Your task to perform on an android device: Search for sushi restaurants on Maps Image 0: 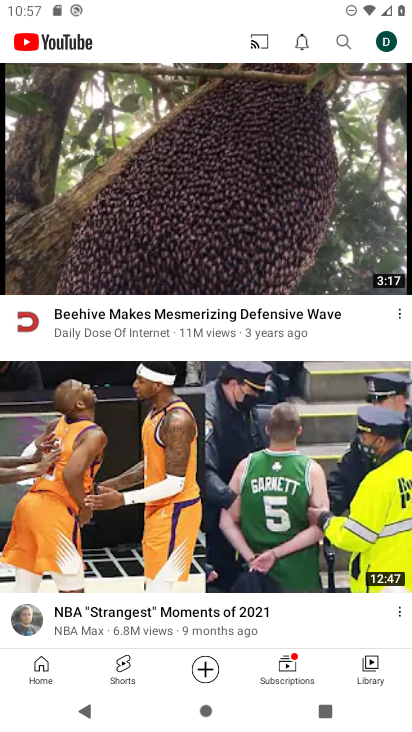
Step 0: press home button
Your task to perform on an android device: Search for sushi restaurants on Maps Image 1: 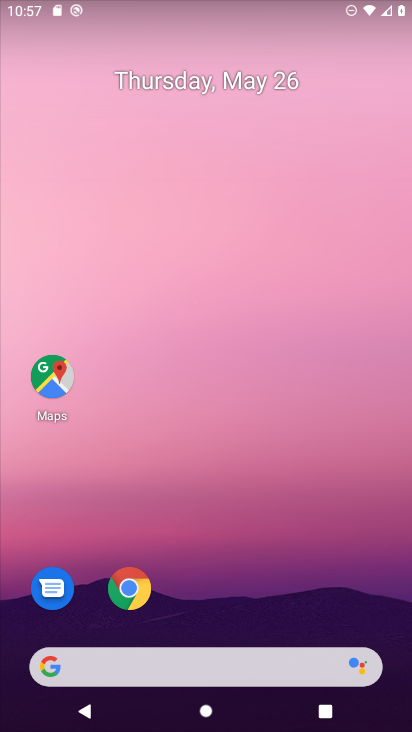
Step 1: click (53, 378)
Your task to perform on an android device: Search for sushi restaurants on Maps Image 2: 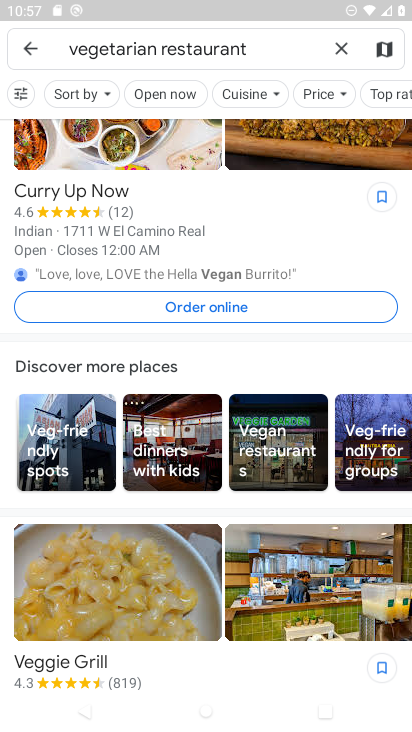
Step 2: click (341, 46)
Your task to perform on an android device: Search for sushi restaurants on Maps Image 3: 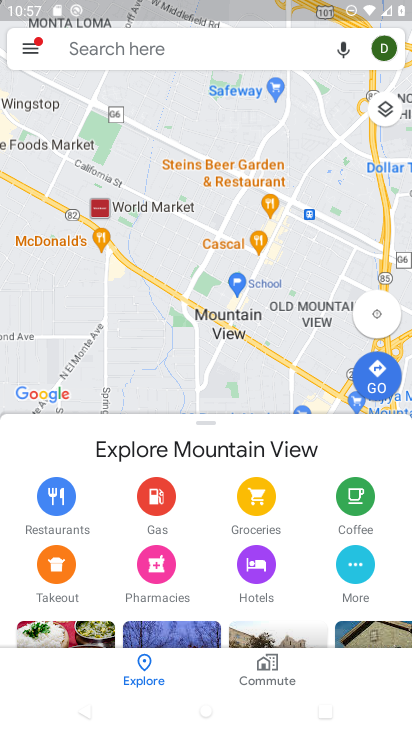
Step 3: click (211, 44)
Your task to perform on an android device: Search for sushi restaurants on Maps Image 4: 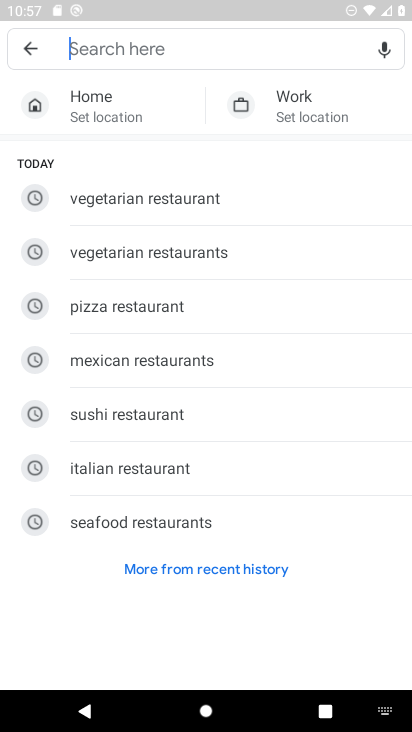
Step 4: type "sushi restairants"
Your task to perform on an android device: Search for sushi restaurants on Maps Image 5: 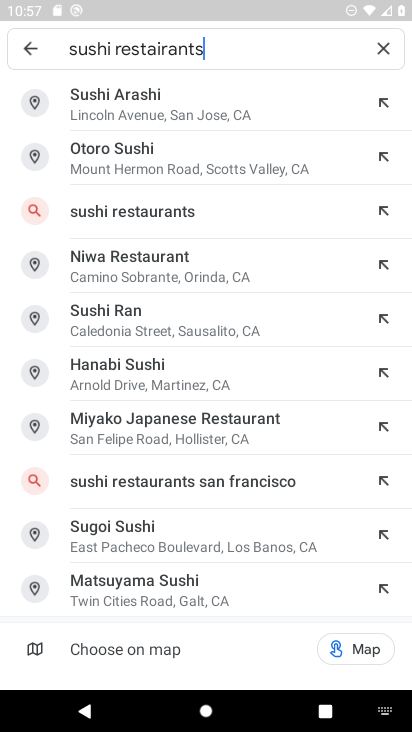
Step 5: click (207, 220)
Your task to perform on an android device: Search for sushi restaurants on Maps Image 6: 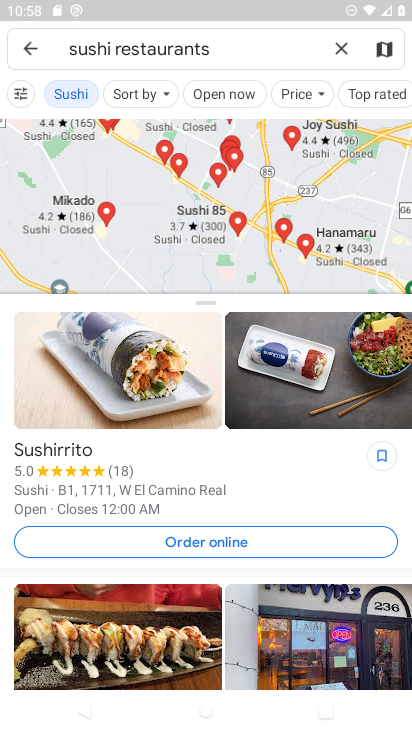
Step 6: task complete